Your task to perform on an android device: add a label to a message in the gmail app Image 0: 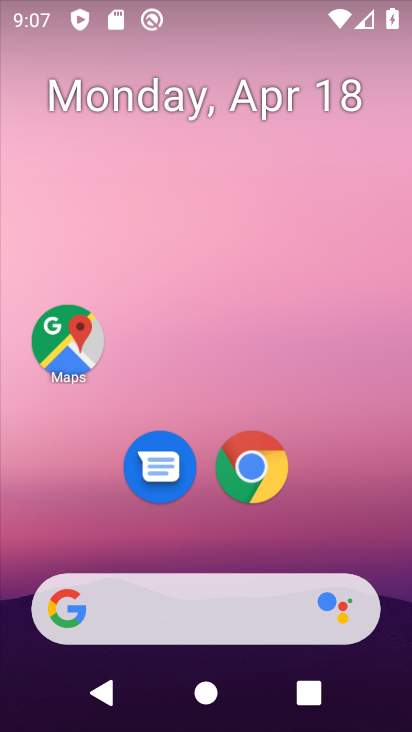
Step 0: drag from (362, 473) to (334, 66)
Your task to perform on an android device: add a label to a message in the gmail app Image 1: 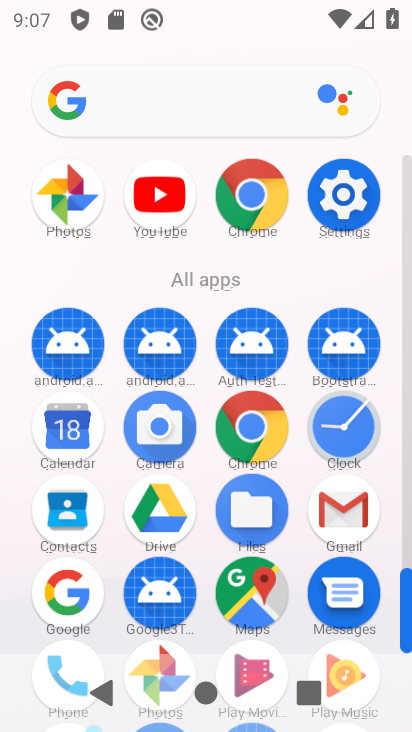
Step 1: click (354, 524)
Your task to perform on an android device: add a label to a message in the gmail app Image 2: 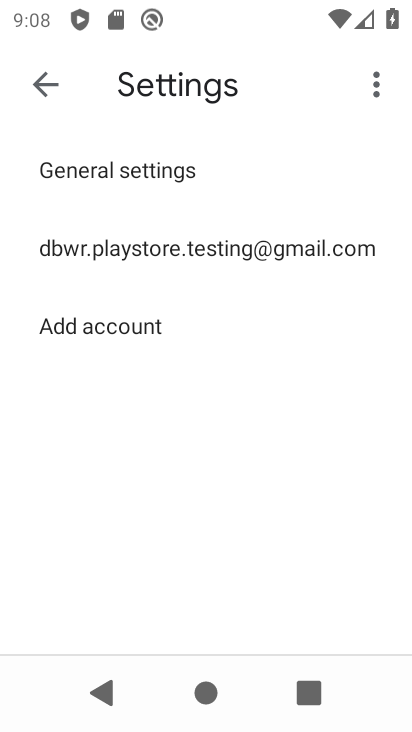
Step 2: click (90, 234)
Your task to perform on an android device: add a label to a message in the gmail app Image 3: 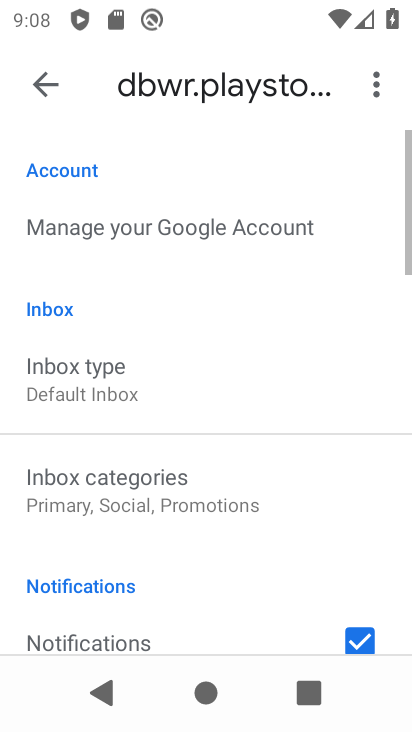
Step 3: click (28, 78)
Your task to perform on an android device: add a label to a message in the gmail app Image 4: 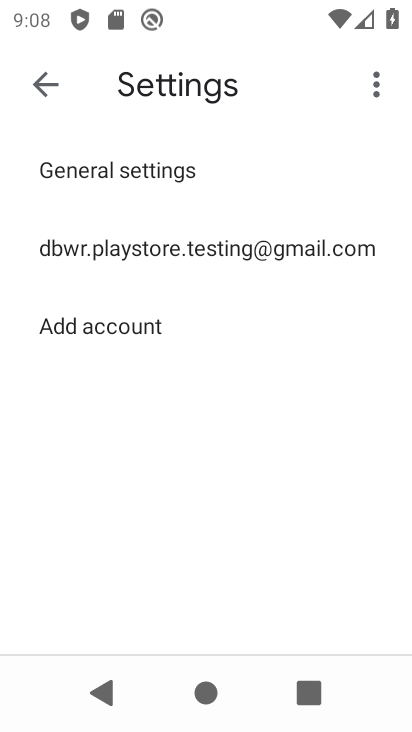
Step 4: click (28, 78)
Your task to perform on an android device: add a label to a message in the gmail app Image 5: 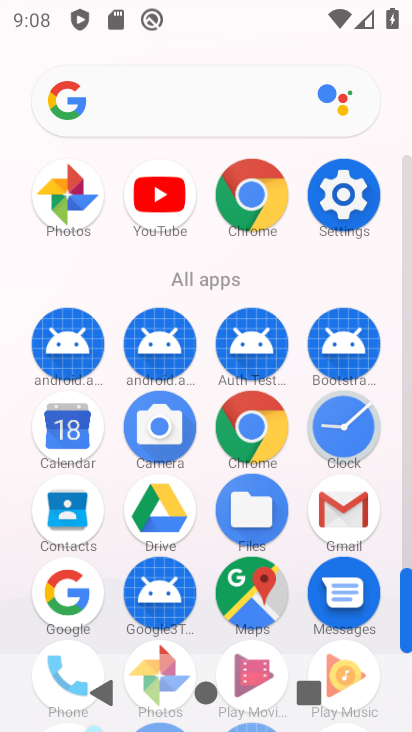
Step 5: click (341, 523)
Your task to perform on an android device: add a label to a message in the gmail app Image 6: 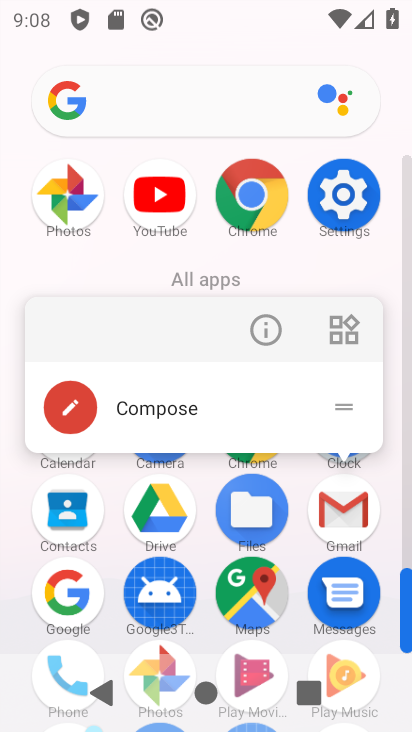
Step 6: click (357, 522)
Your task to perform on an android device: add a label to a message in the gmail app Image 7: 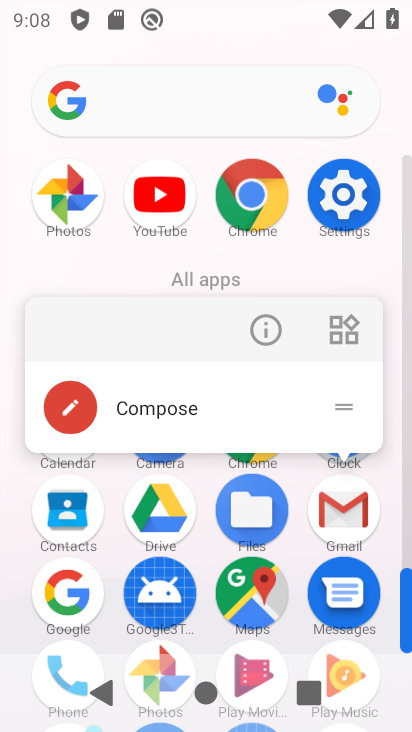
Step 7: click (357, 522)
Your task to perform on an android device: add a label to a message in the gmail app Image 8: 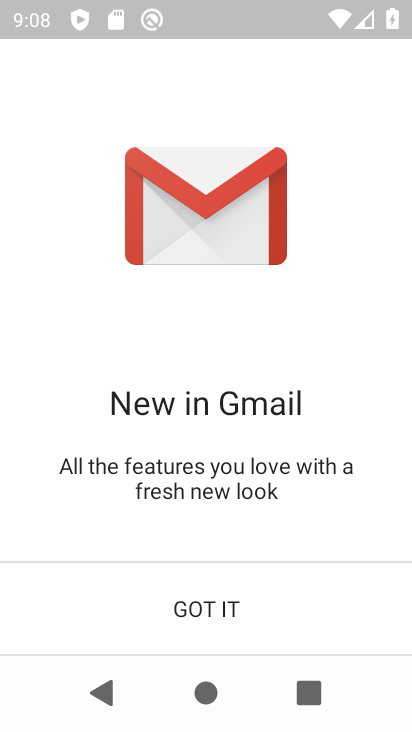
Step 8: click (58, 597)
Your task to perform on an android device: add a label to a message in the gmail app Image 9: 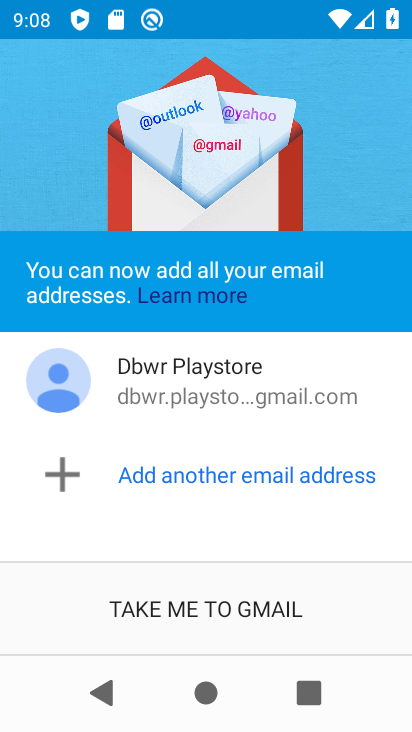
Step 9: click (242, 614)
Your task to perform on an android device: add a label to a message in the gmail app Image 10: 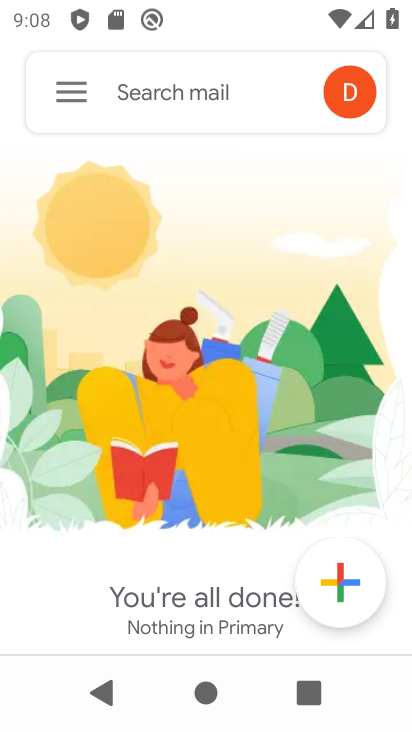
Step 10: task complete